Your task to perform on an android device: Open Reddit.com Image 0: 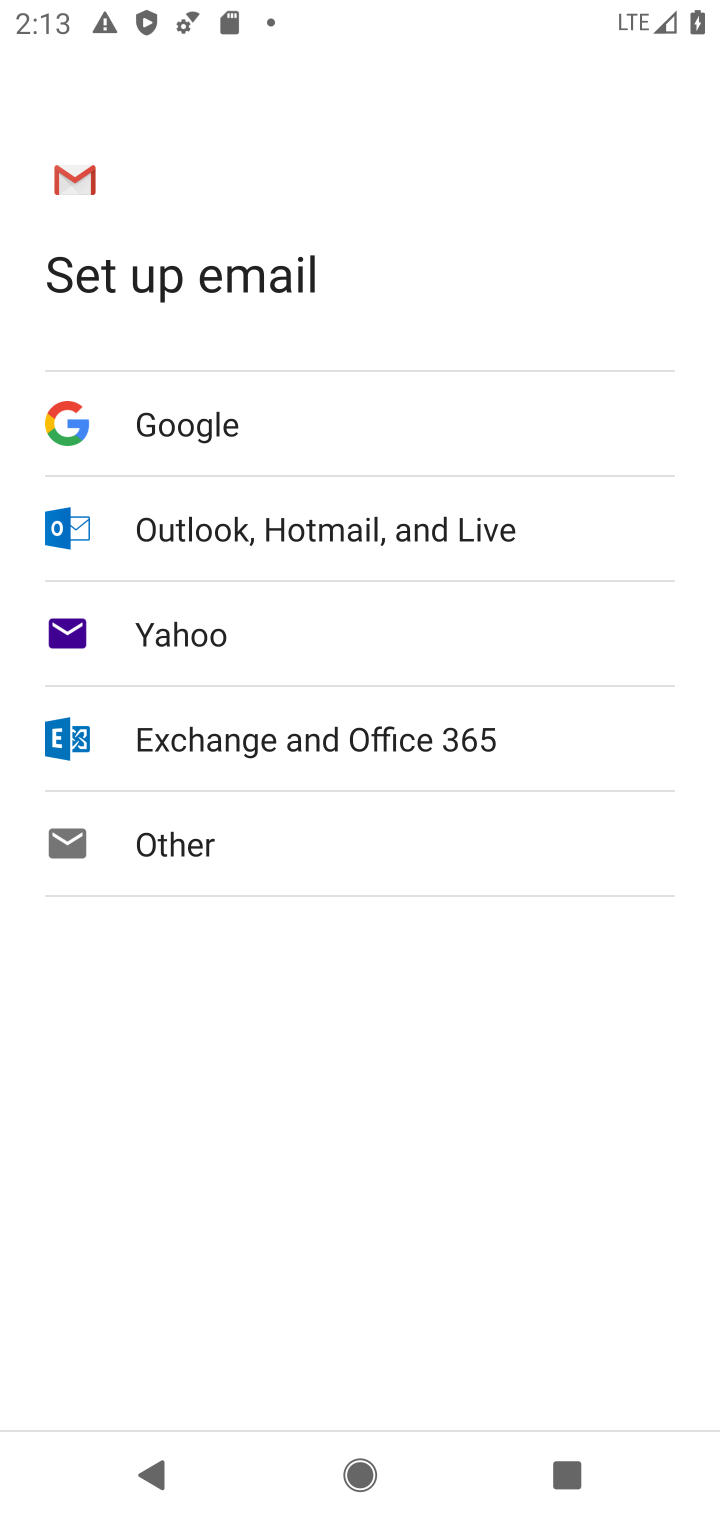
Step 0: press back button
Your task to perform on an android device: Open Reddit.com Image 1: 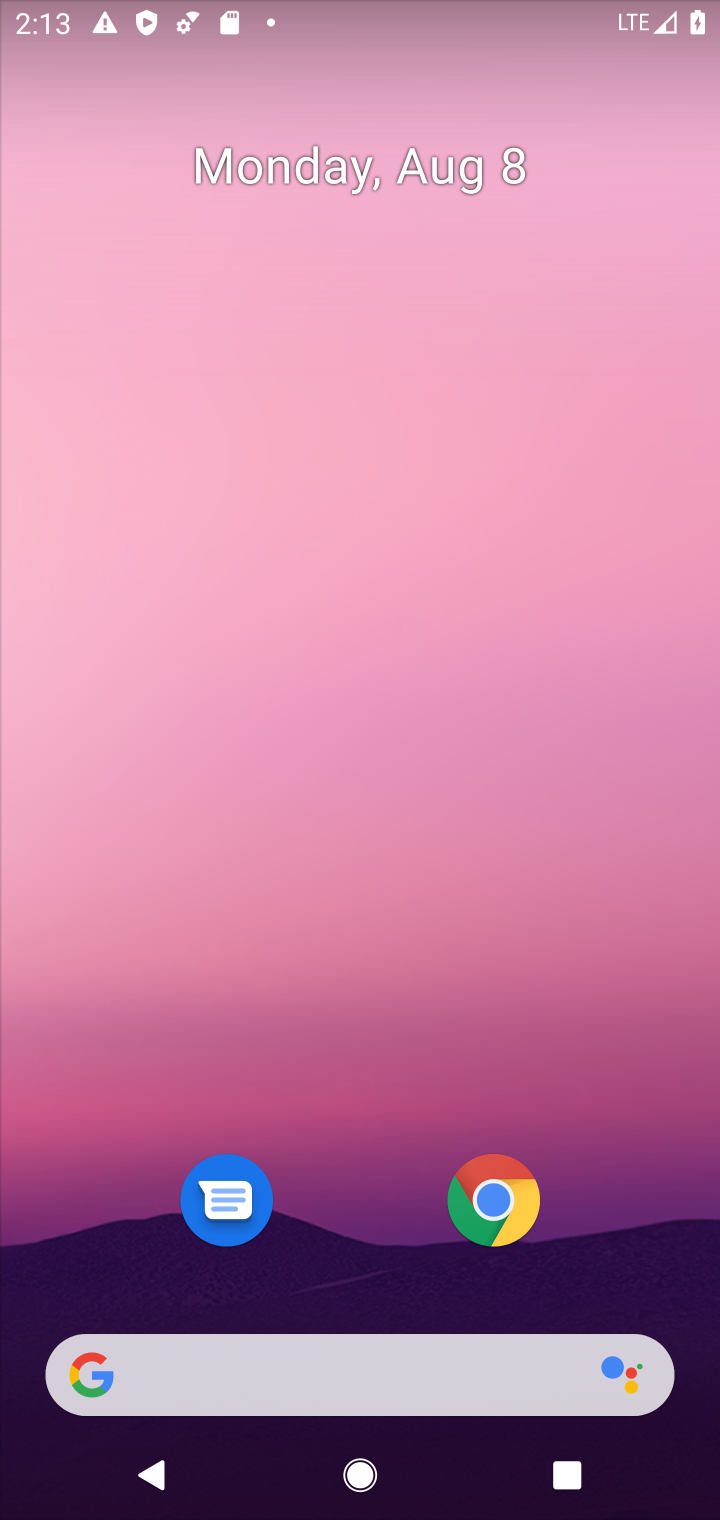
Step 1: click (493, 1198)
Your task to perform on an android device: Open Reddit.com Image 2: 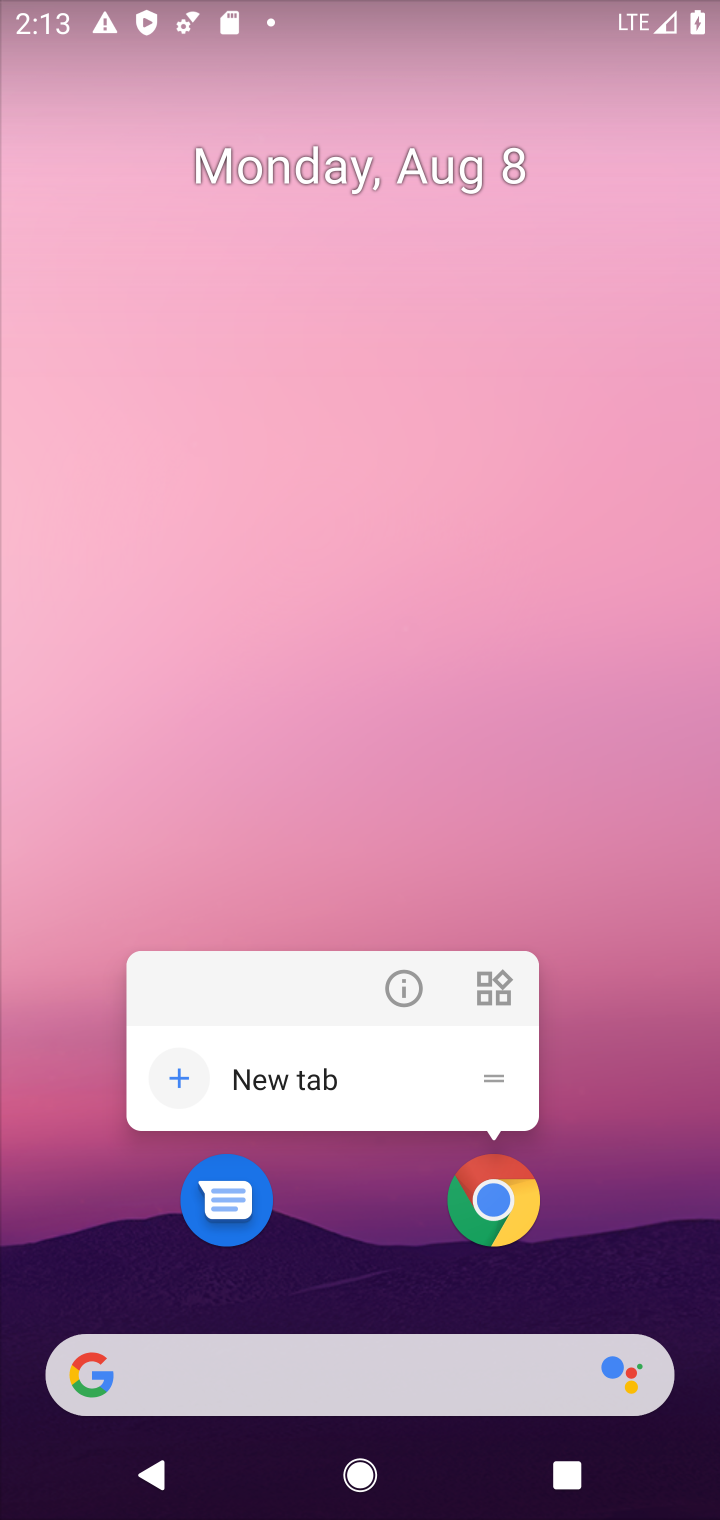
Step 2: click (493, 1198)
Your task to perform on an android device: Open Reddit.com Image 3: 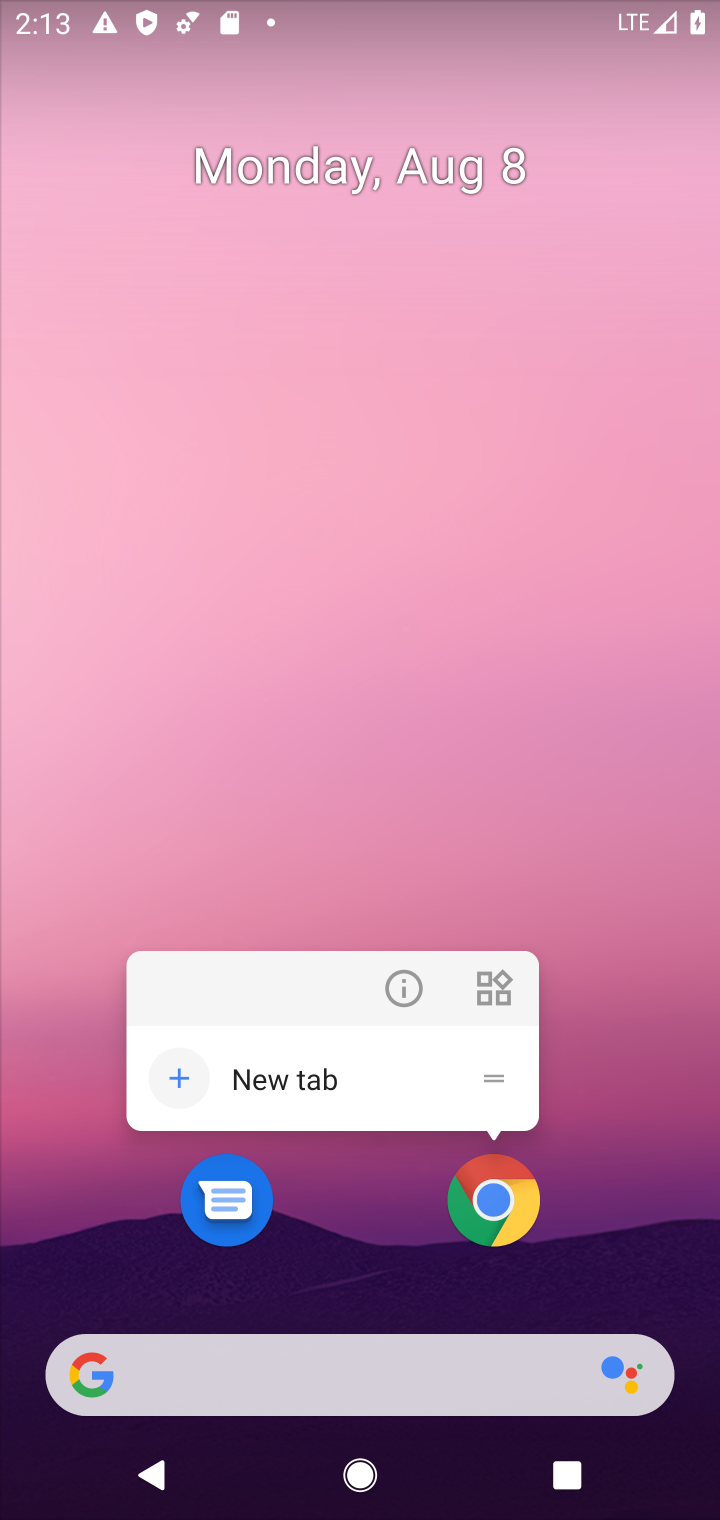
Step 3: click (495, 1196)
Your task to perform on an android device: Open Reddit.com Image 4: 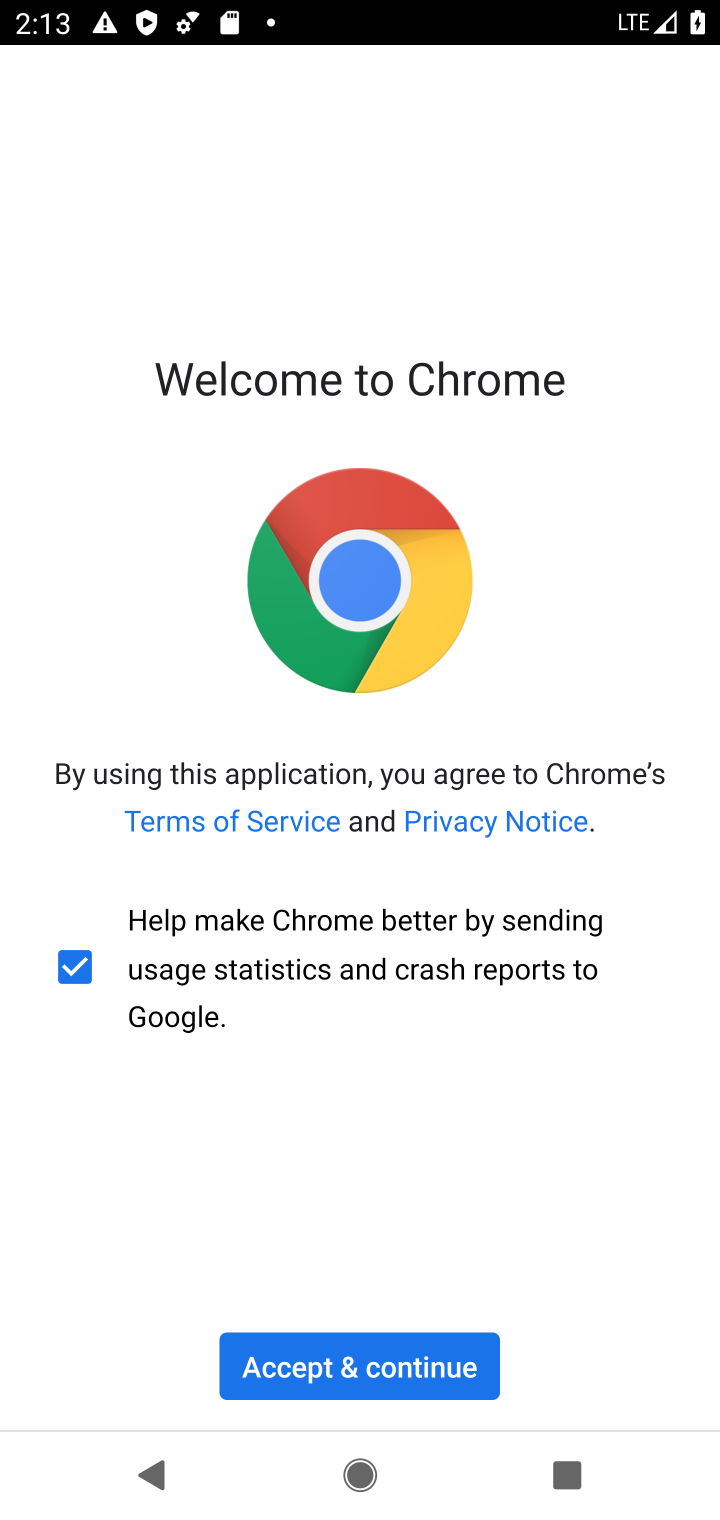
Step 4: click (349, 1345)
Your task to perform on an android device: Open Reddit.com Image 5: 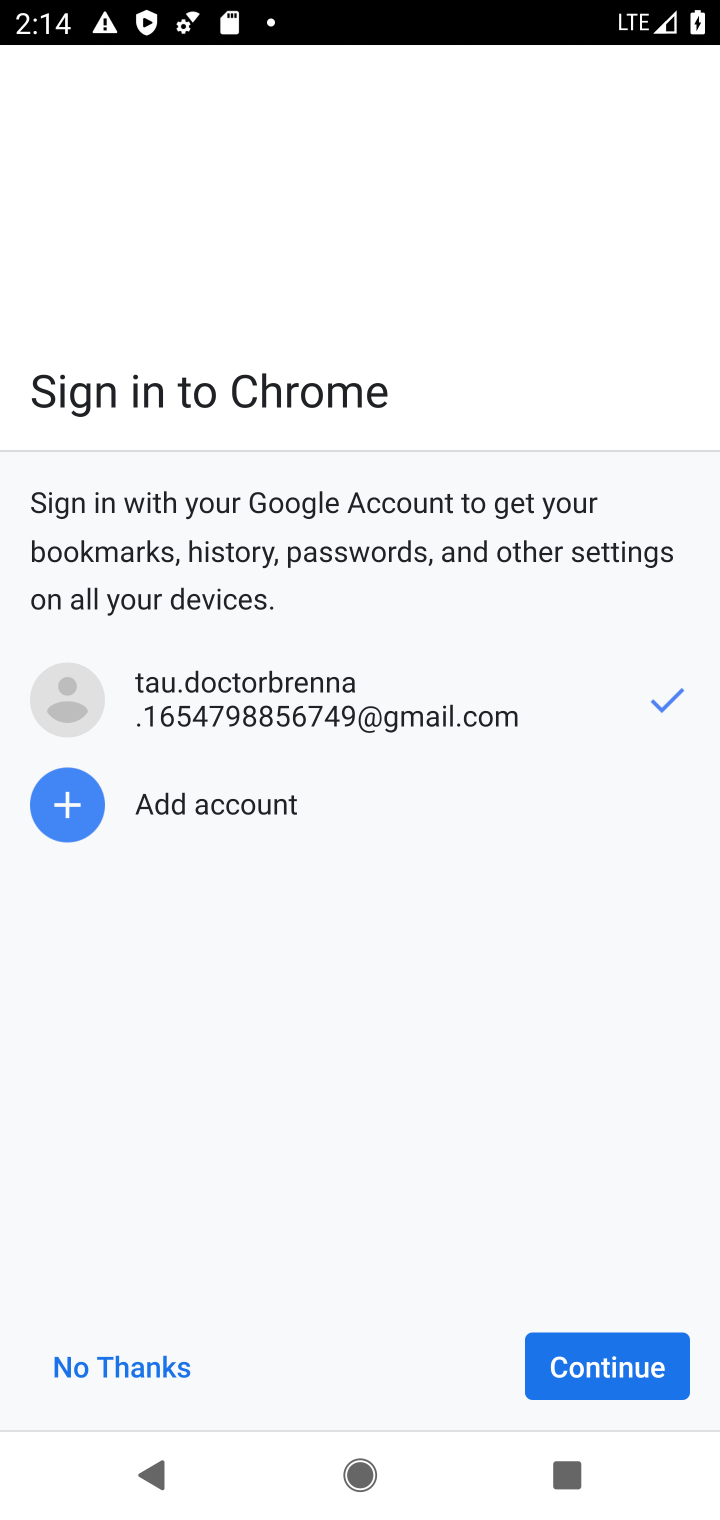
Step 5: press back button
Your task to perform on an android device: Open Reddit.com Image 6: 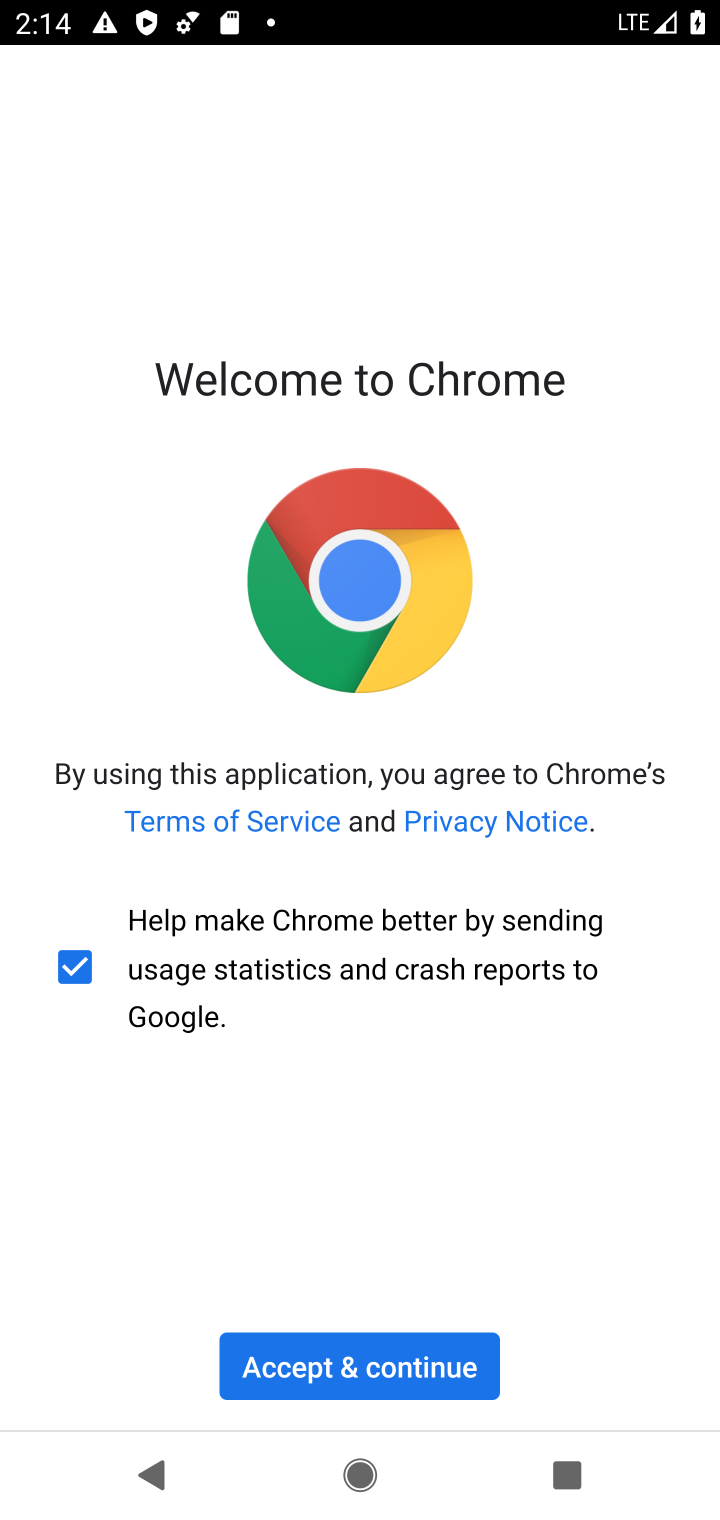
Step 6: press back button
Your task to perform on an android device: Open Reddit.com Image 7: 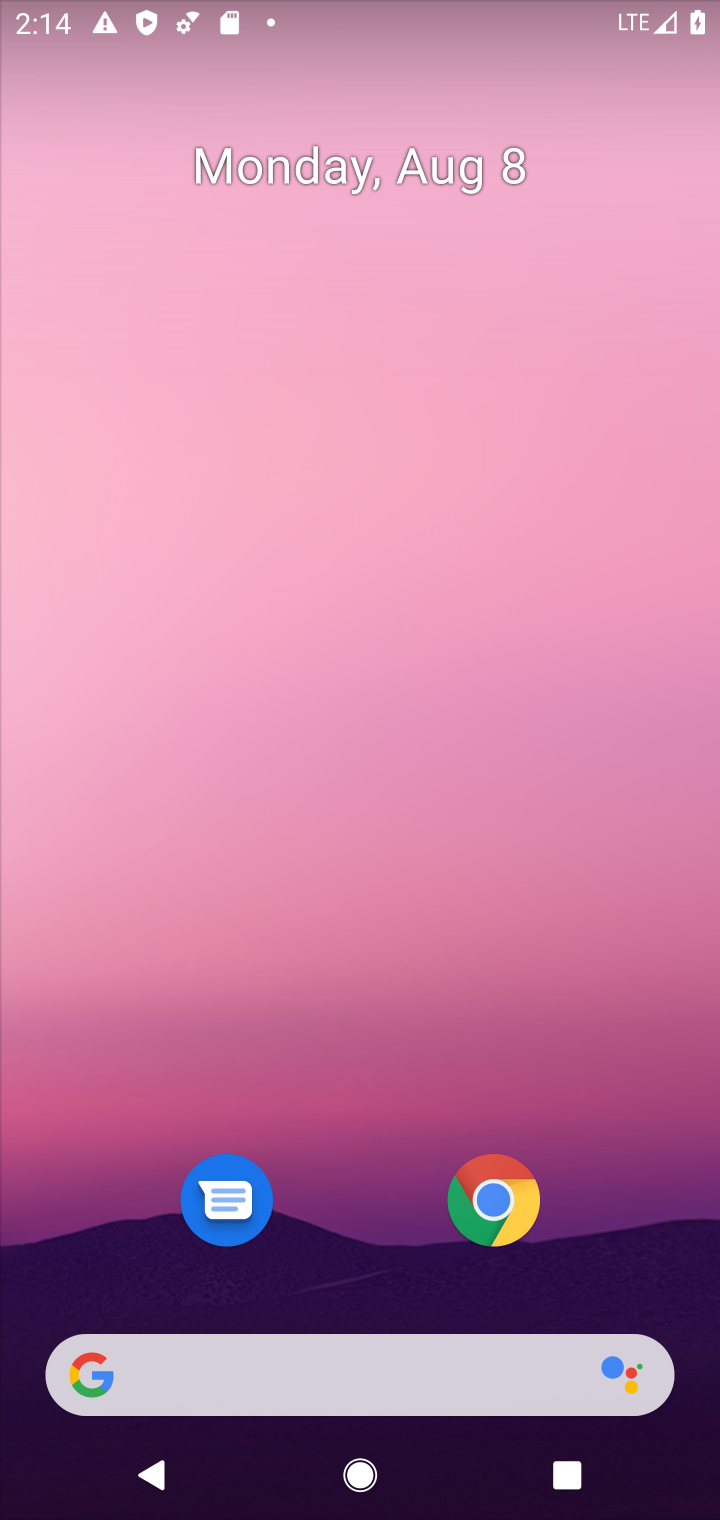
Step 7: click (500, 1212)
Your task to perform on an android device: Open Reddit.com Image 8: 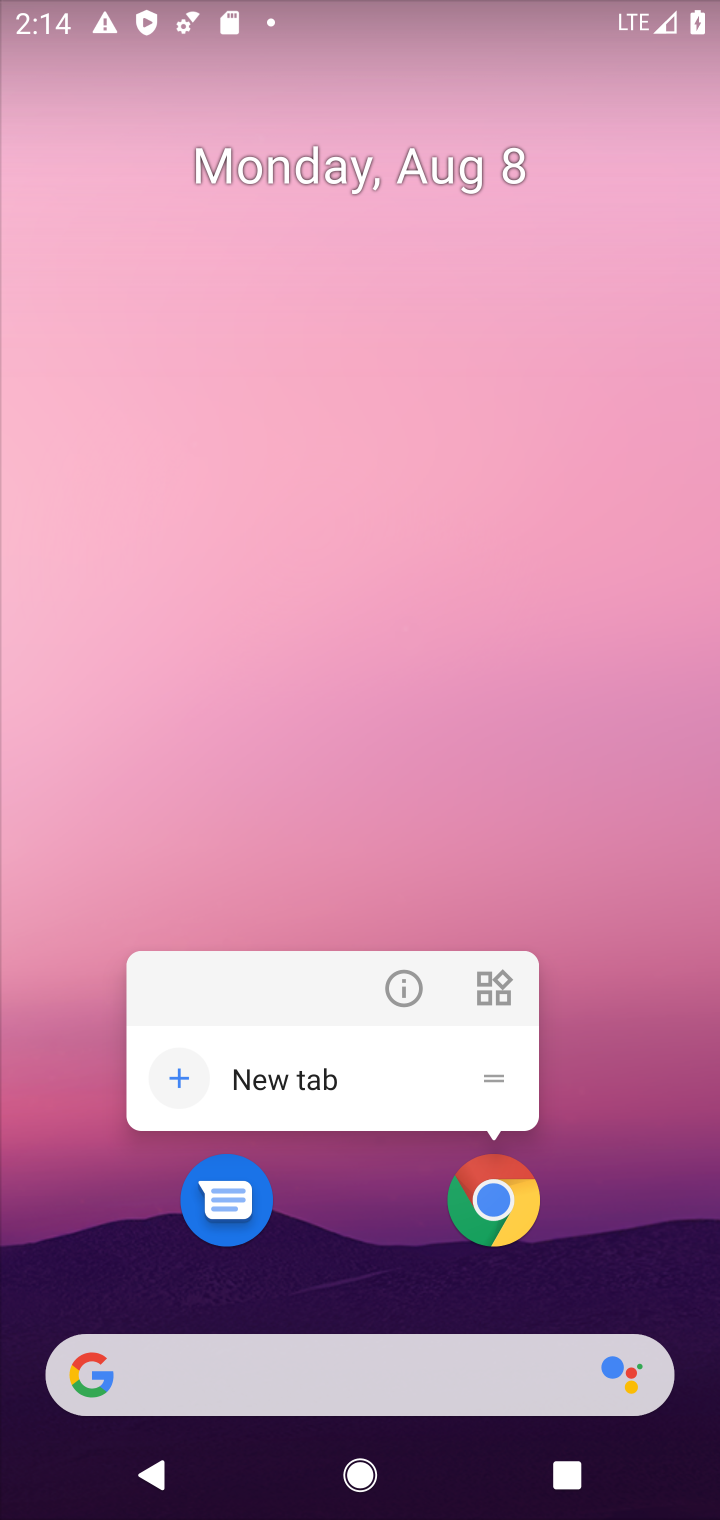
Step 8: click (505, 1210)
Your task to perform on an android device: Open Reddit.com Image 9: 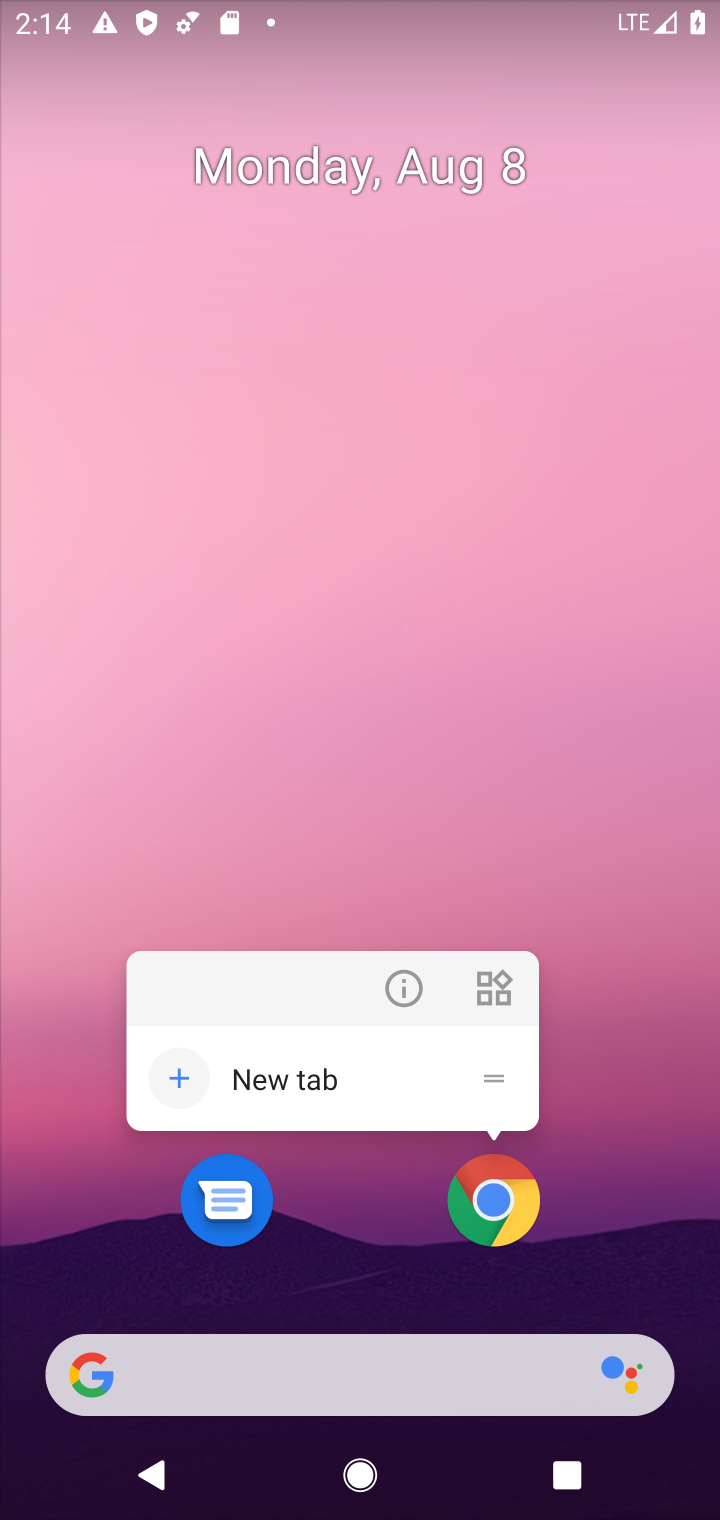
Step 9: click (498, 1207)
Your task to perform on an android device: Open Reddit.com Image 10: 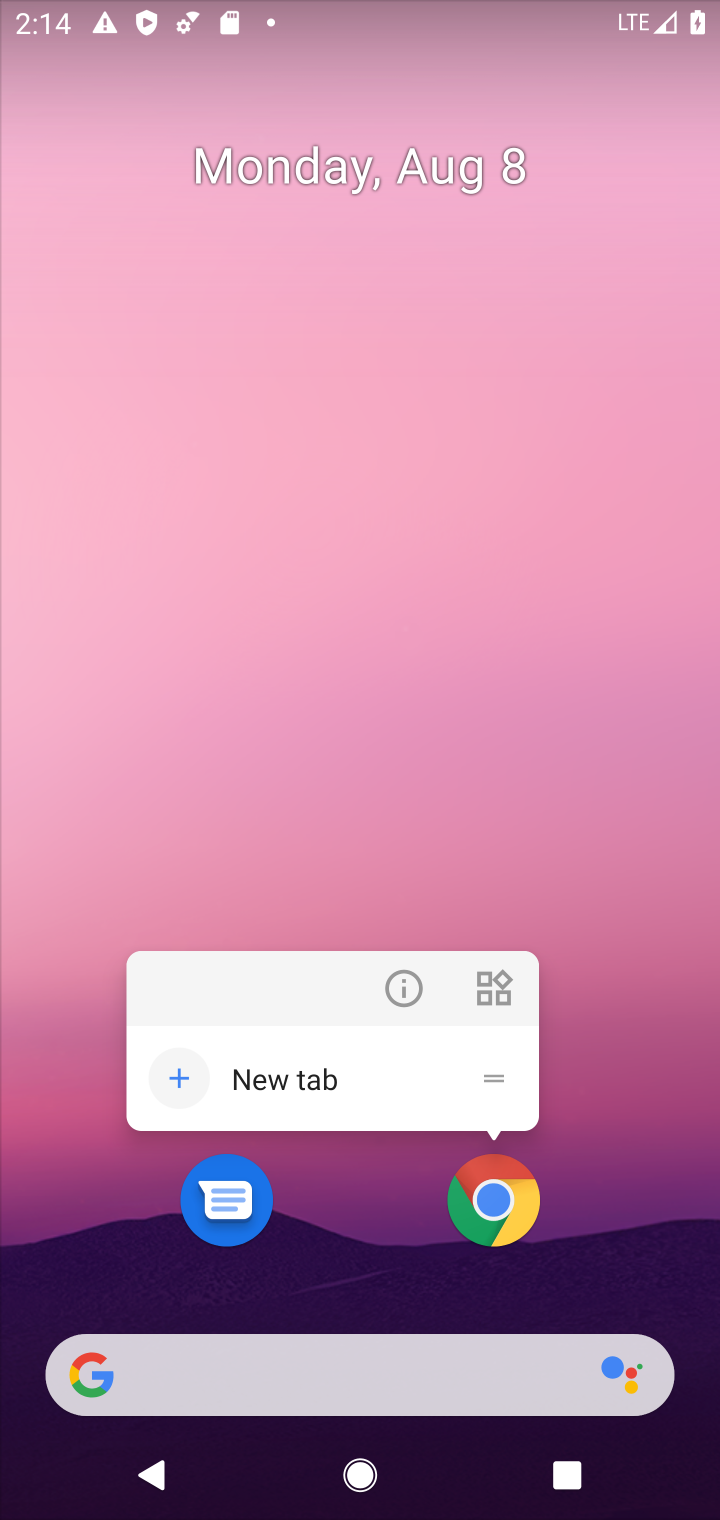
Step 10: click (498, 1212)
Your task to perform on an android device: Open Reddit.com Image 11: 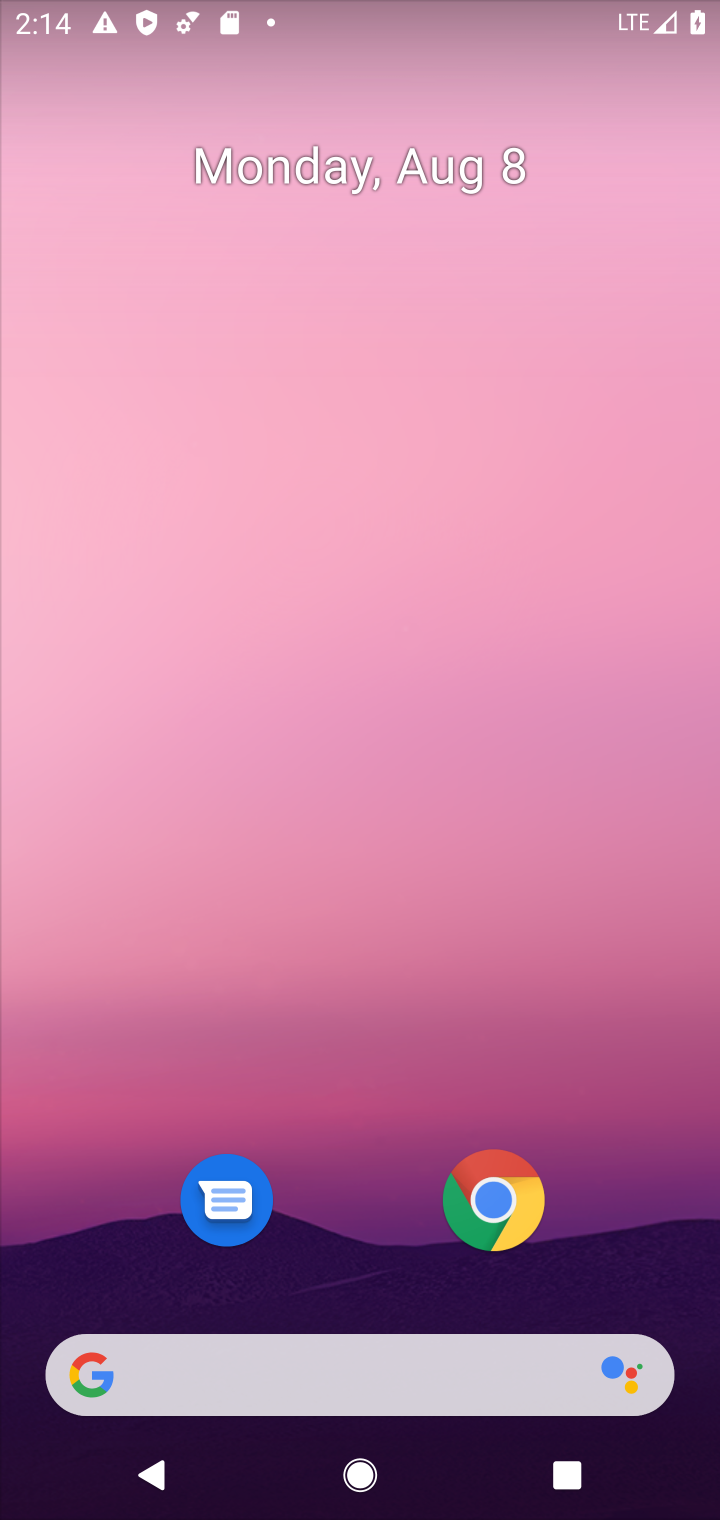
Step 11: click (504, 1205)
Your task to perform on an android device: Open Reddit.com Image 12: 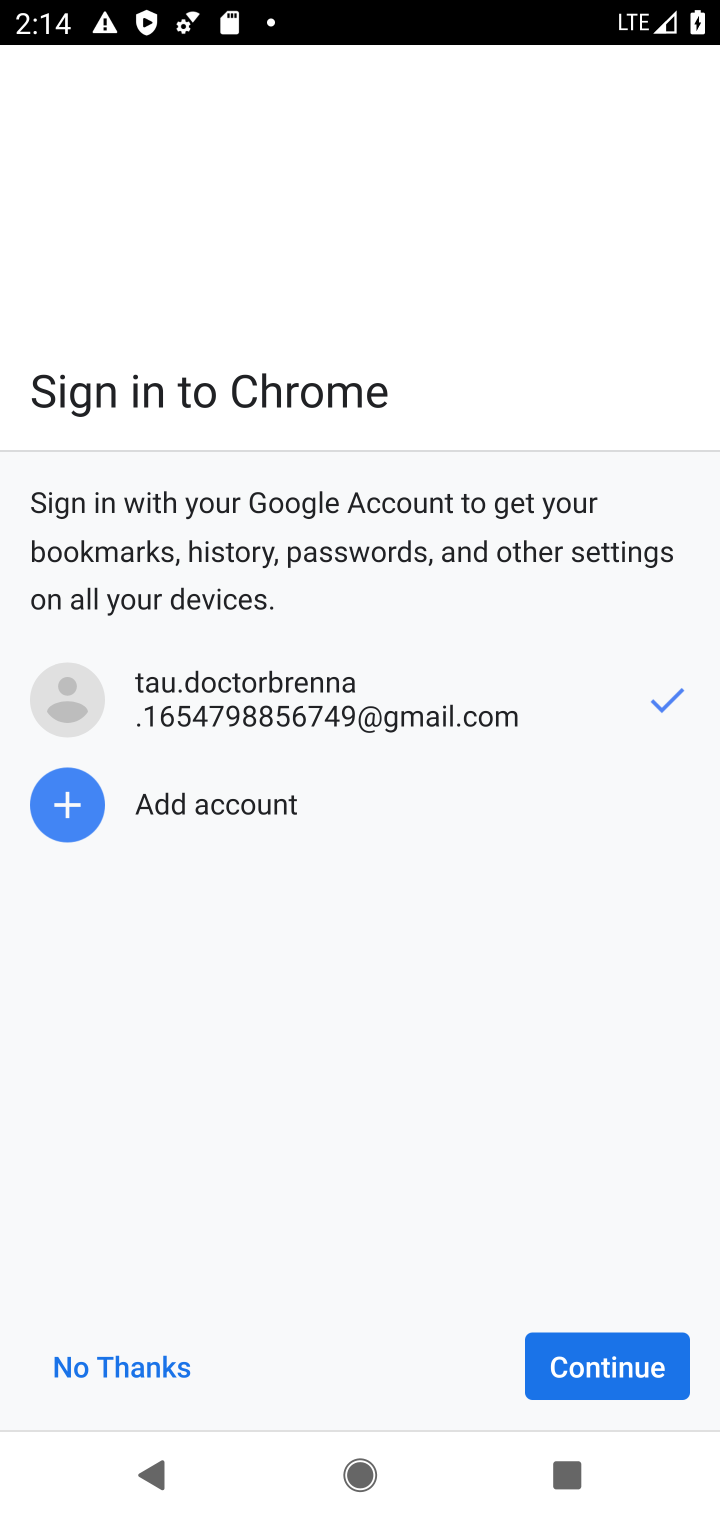
Step 12: click (590, 1348)
Your task to perform on an android device: Open Reddit.com Image 13: 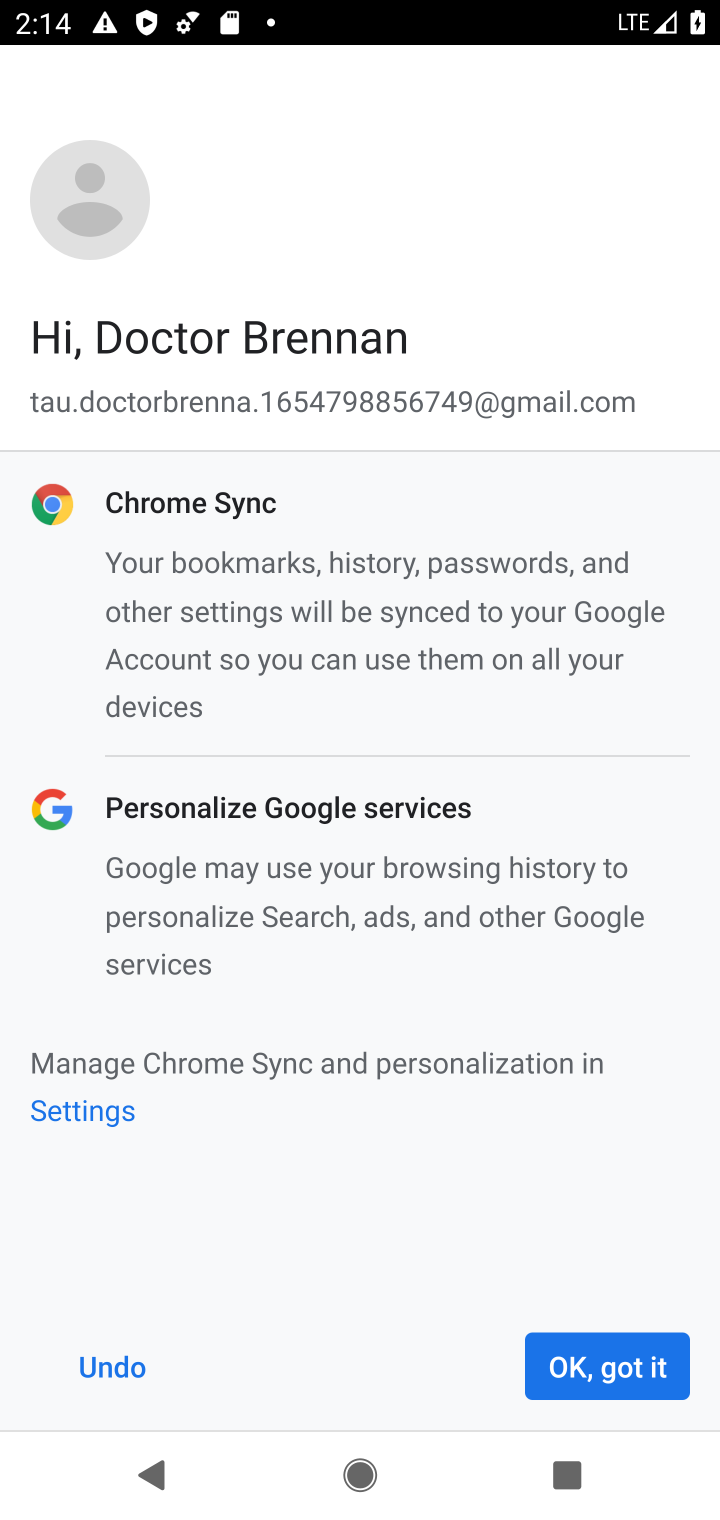
Step 13: click (586, 1364)
Your task to perform on an android device: Open Reddit.com Image 14: 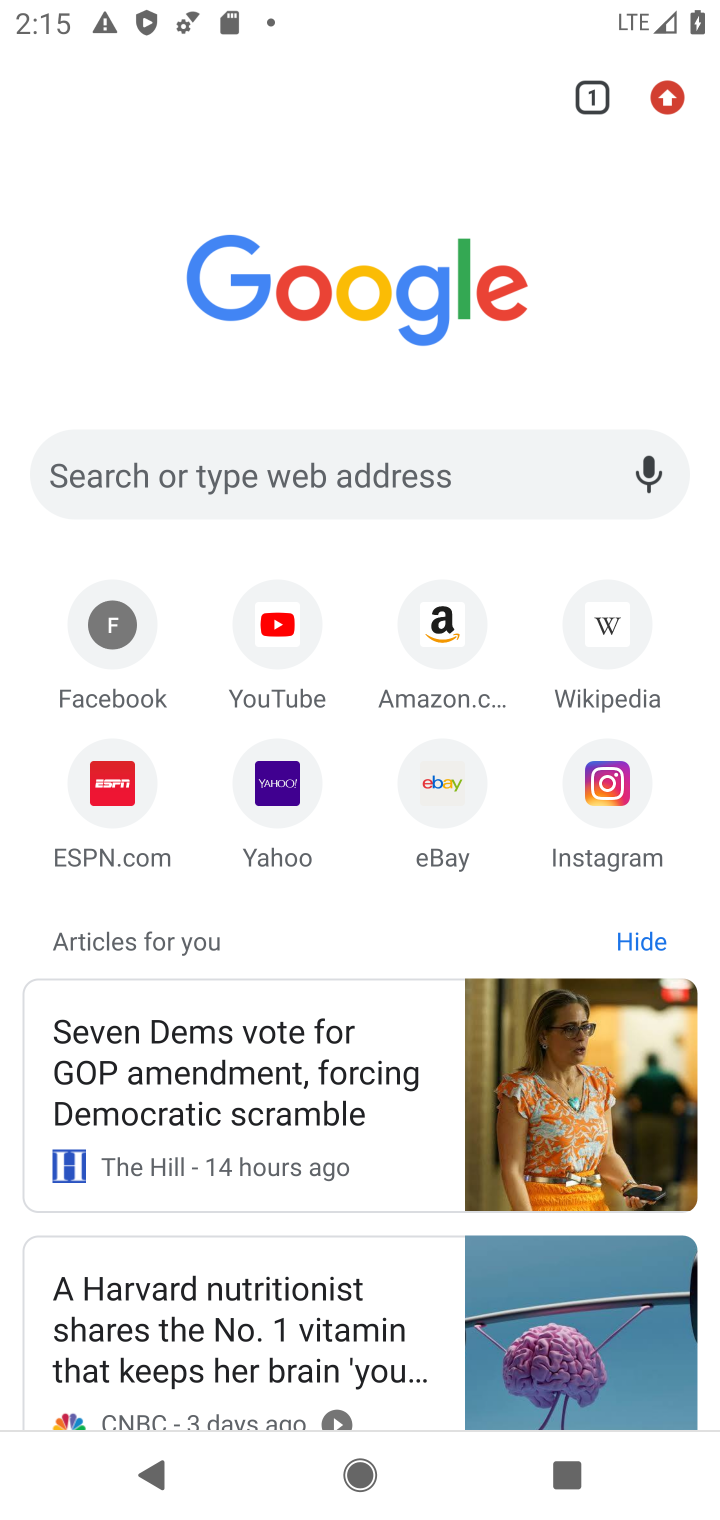
Step 14: click (214, 460)
Your task to perform on an android device: Open Reddit.com Image 15: 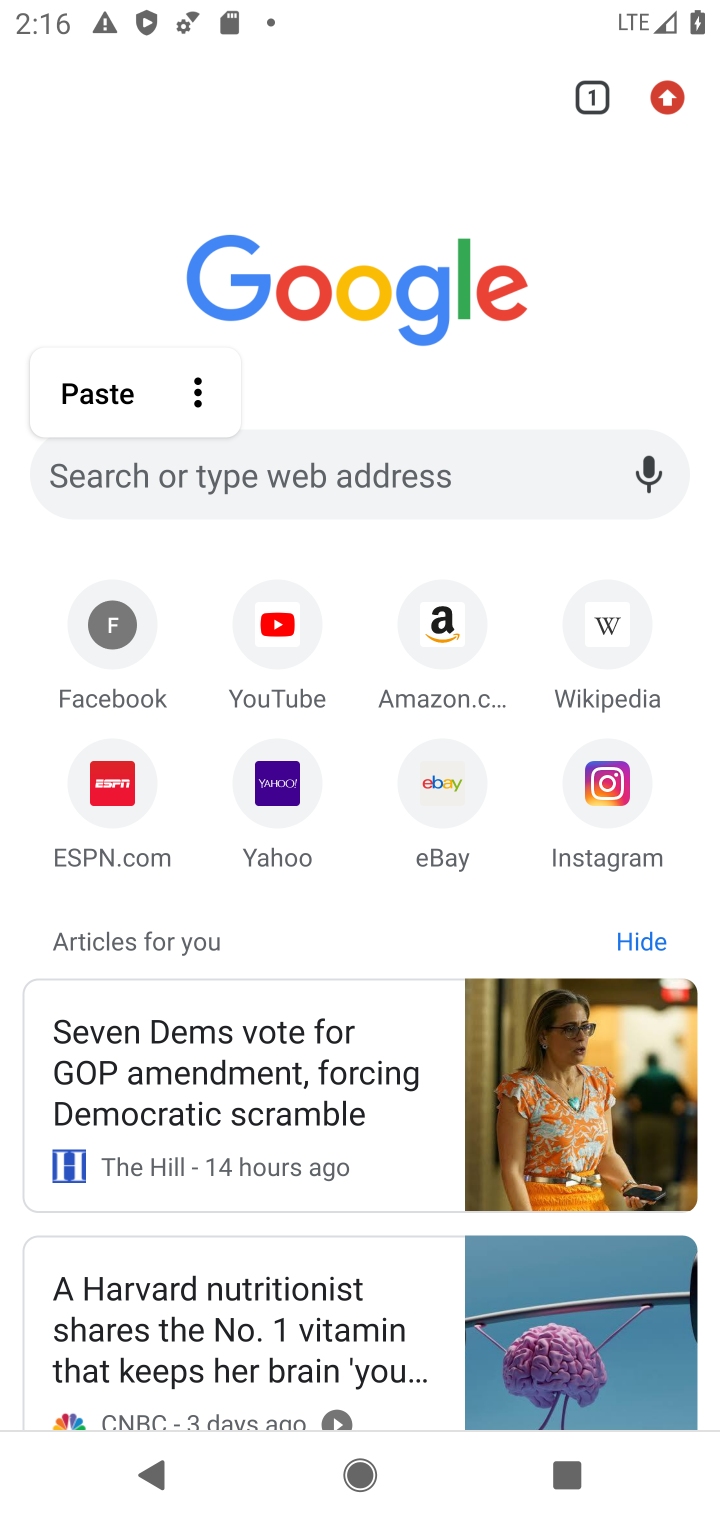
Step 15: type "reddit.com"
Your task to perform on an android device: Open Reddit.com Image 16: 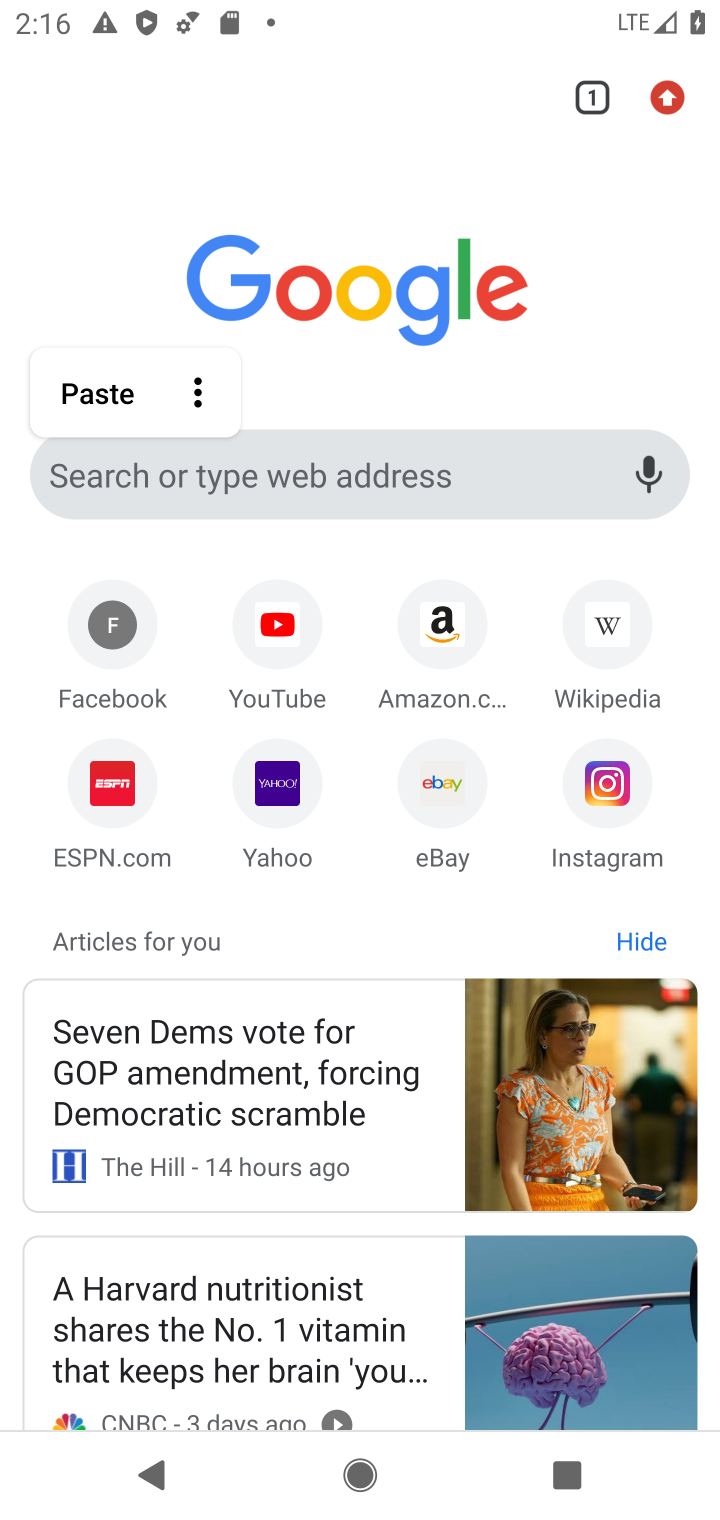
Step 16: click (373, 448)
Your task to perform on an android device: Open Reddit.com Image 17: 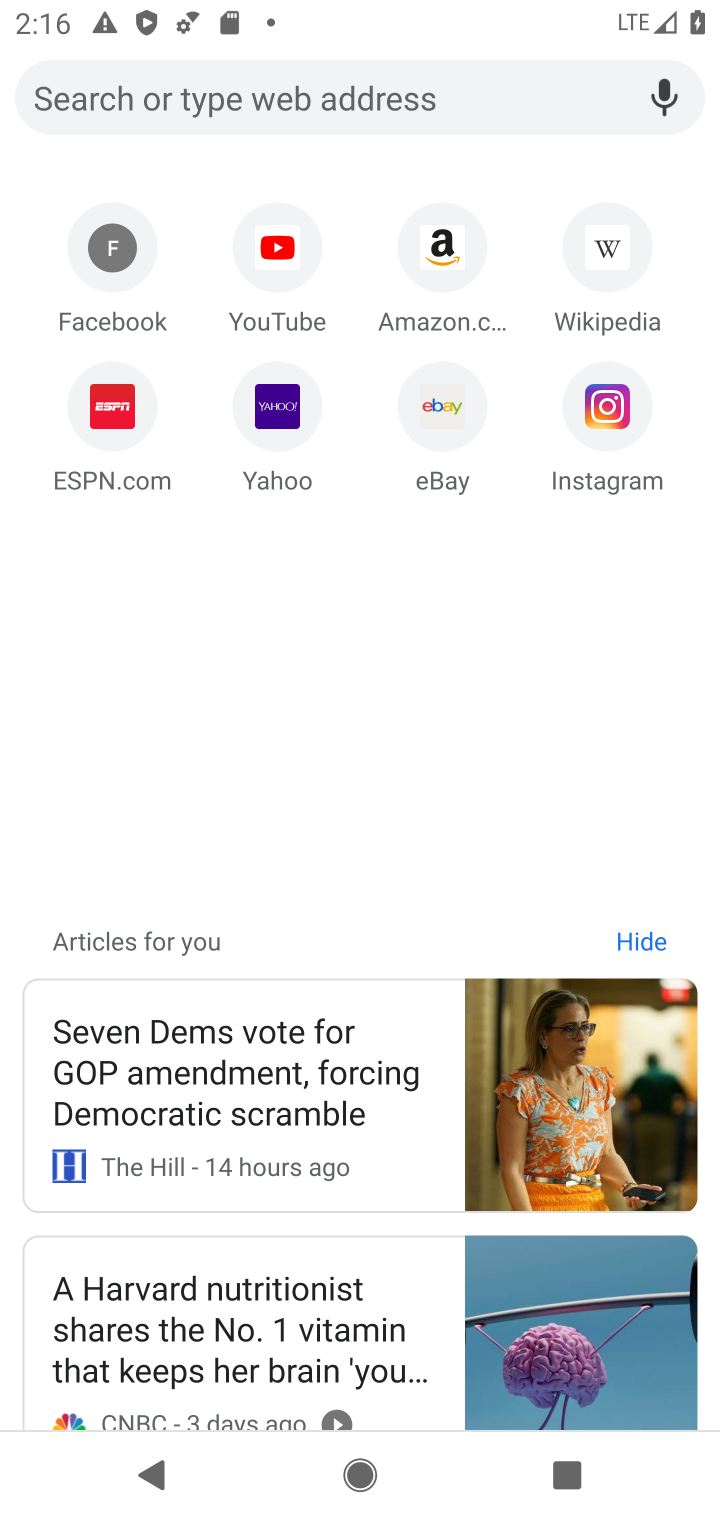
Step 17: click (363, 475)
Your task to perform on an android device: Open Reddit.com Image 18: 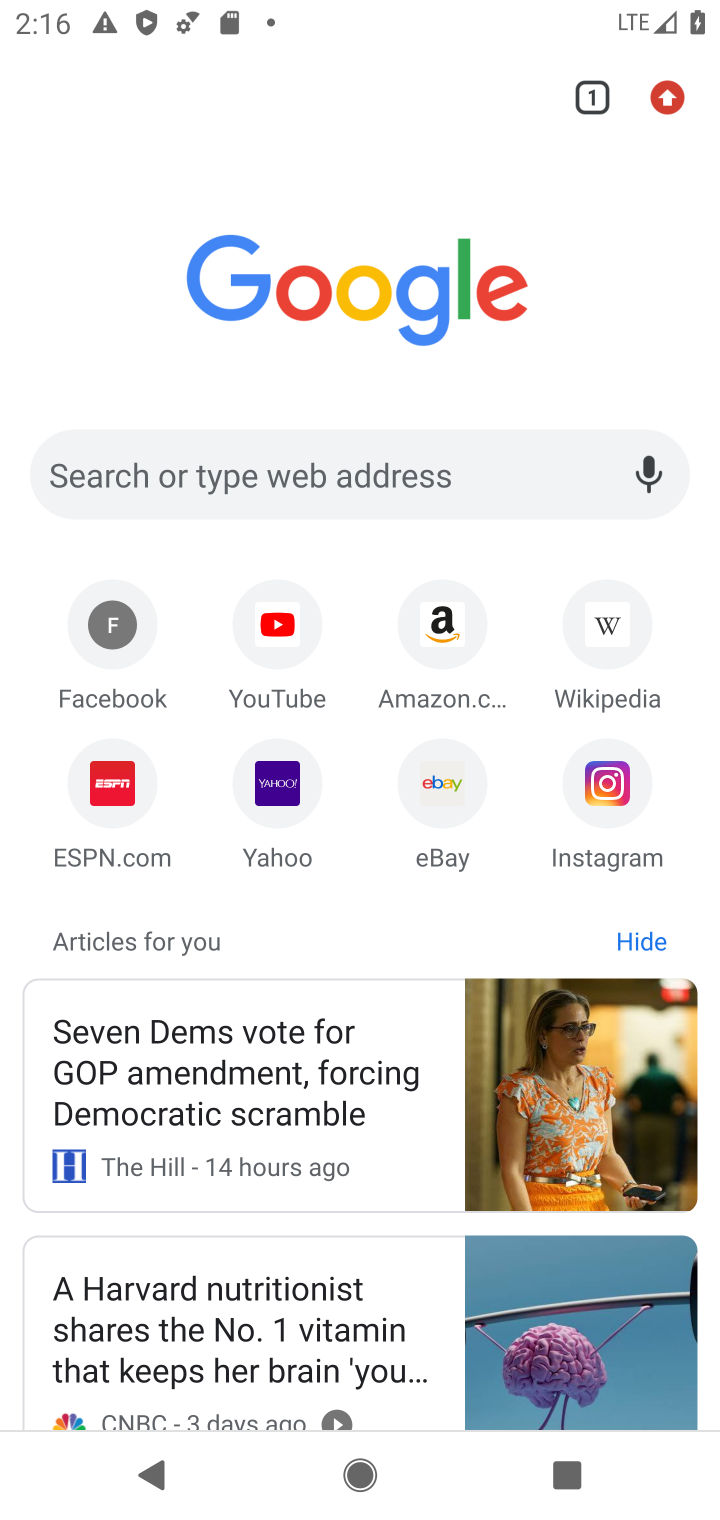
Step 18: click (183, 481)
Your task to perform on an android device: Open Reddit.com Image 19: 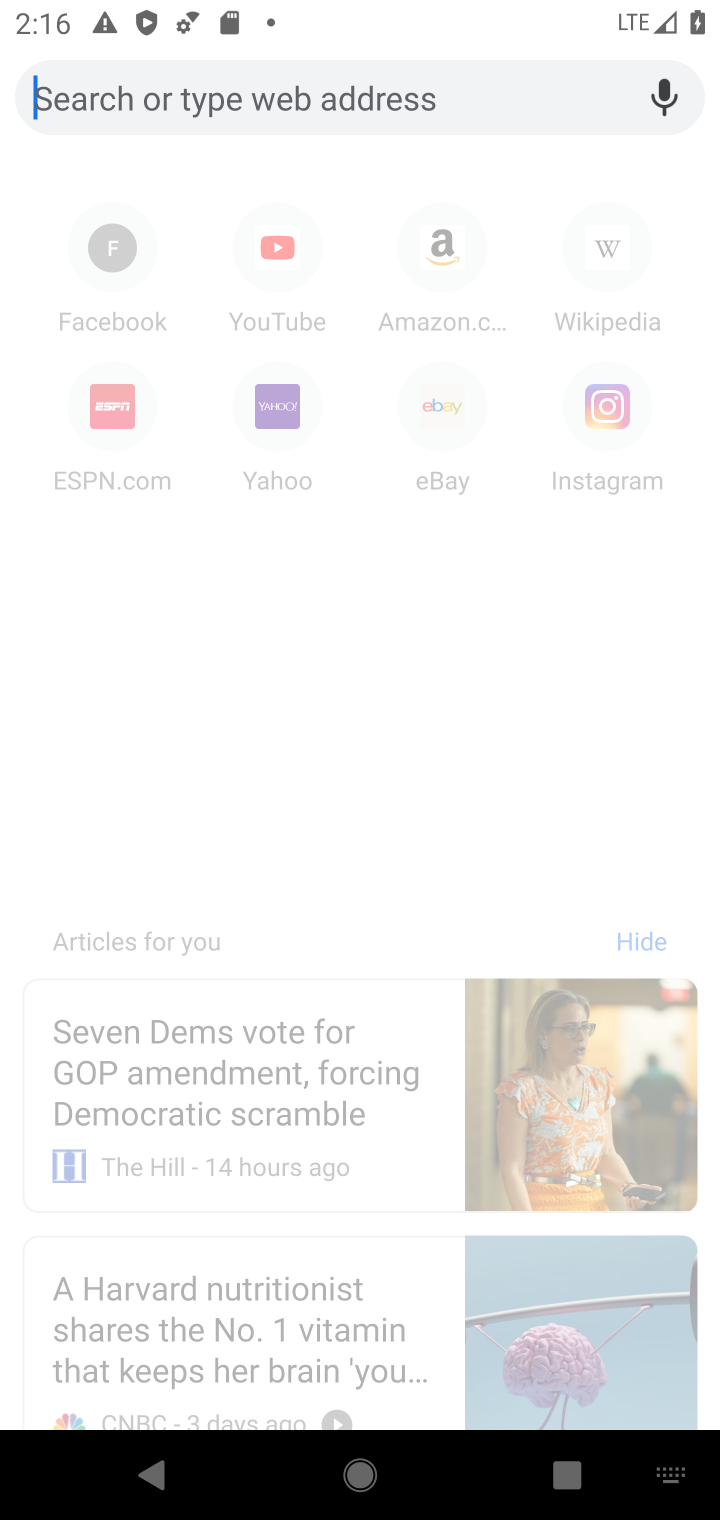
Step 19: type "reddit.com"
Your task to perform on an android device: Open Reddit.com Image 20: 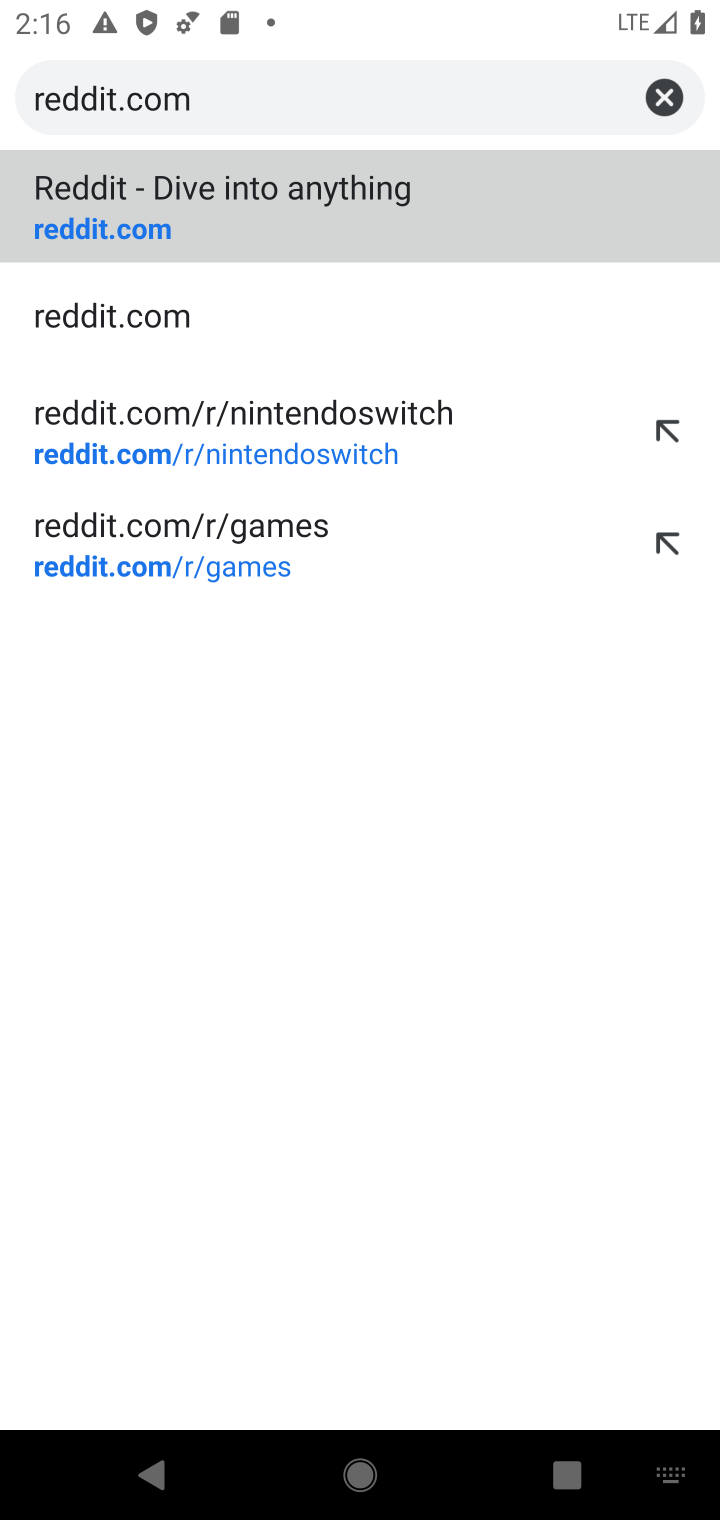
Step 20: click (299, 216)
Your task to perform on an android device: Open Reddit.com Image 21: 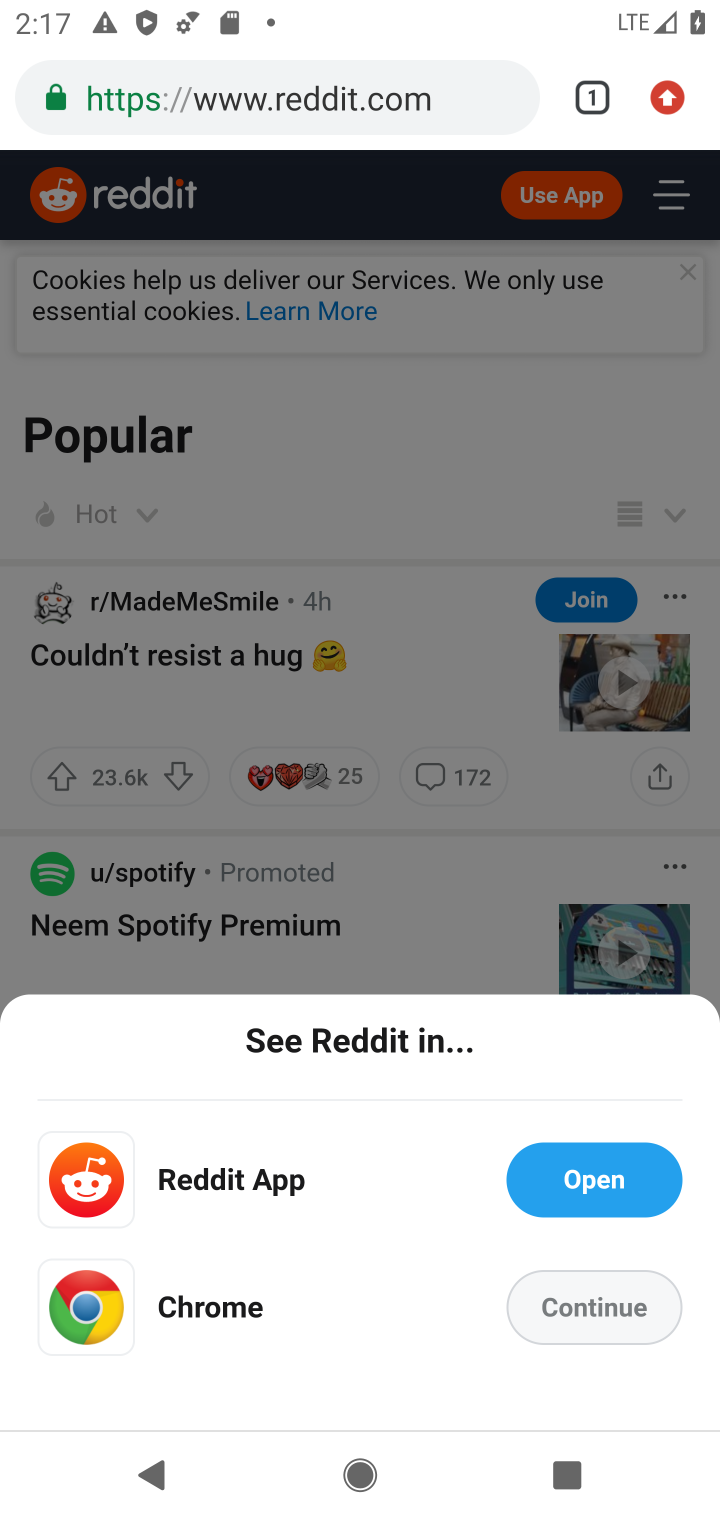
Step 21: task complete